Your task to perform on an android device: star an email in the gmail app Image 0: 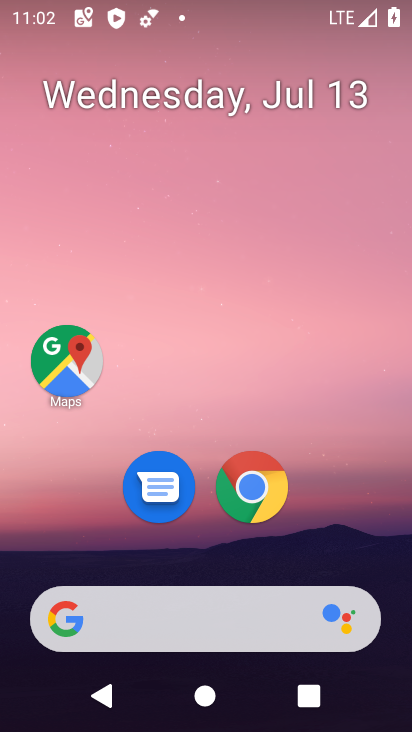
Step 0: drag from (217, 563) to (216, 96)
Your task to perform on an android device: star an email in the gmail app Image 1: 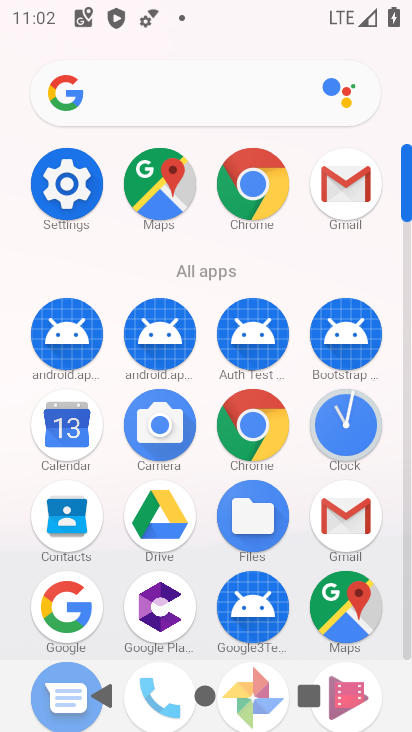
Step 1: click (335, 531)
Your task to perform on an android device: star an email in the gmail app Image 2: 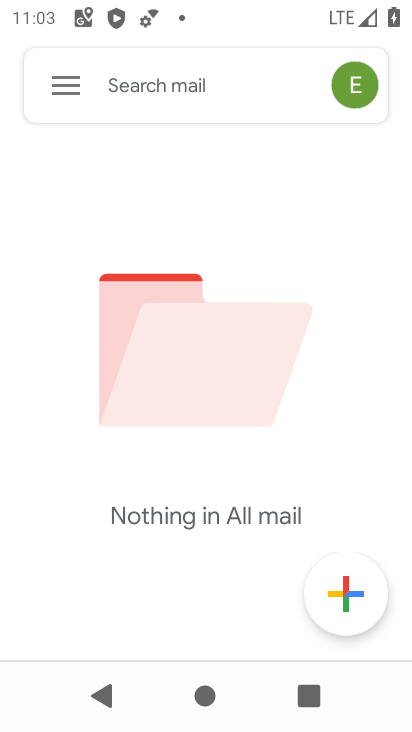
Step 2: click (59, 84)
Your task to perform on an android device: star an email in the gmail app Image 3: 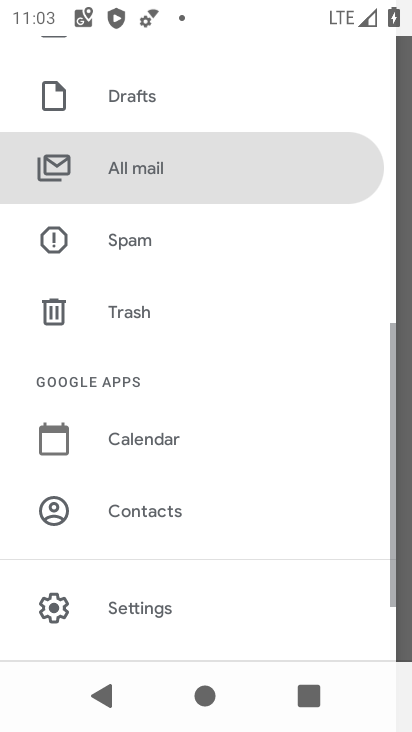
Step 3: click (158, 166)
Your task to perform on an android device: star an email in the gmail app Image 4: 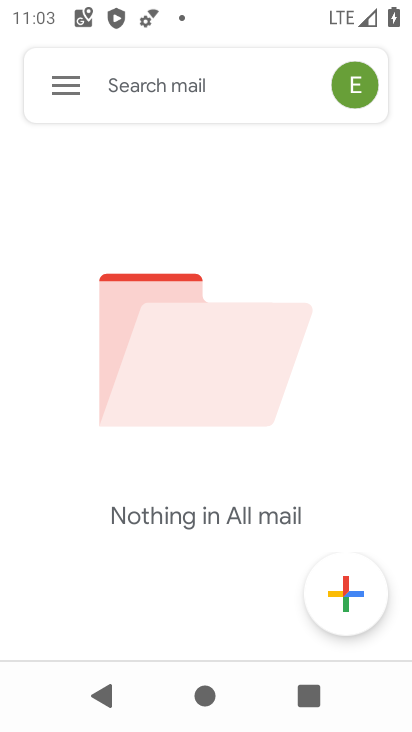
Step 4: task complete